Your task to perform on an android device: open wifi settings Image 0: 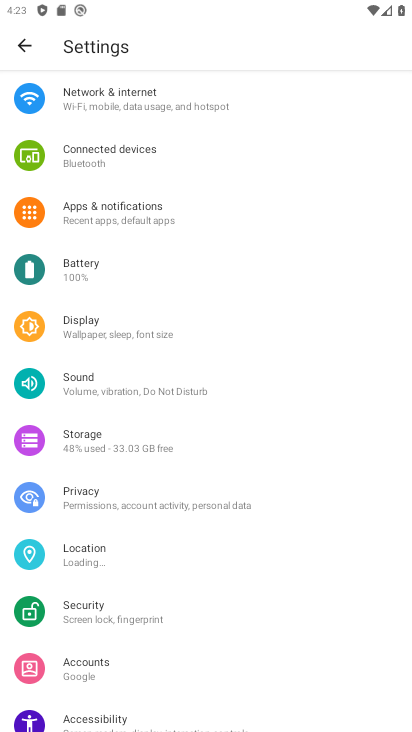
Step 0: press back button
Your task to perform on an android device: open wifi settings Image 1: 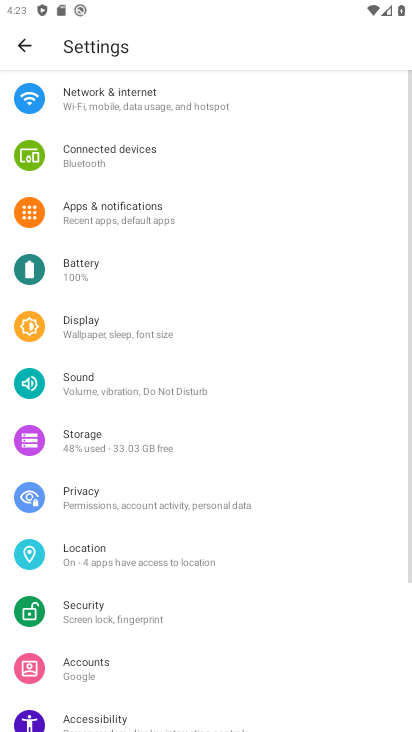
Step 1: press back button
Your task to perform on an android device: open wifi settings Image 2: 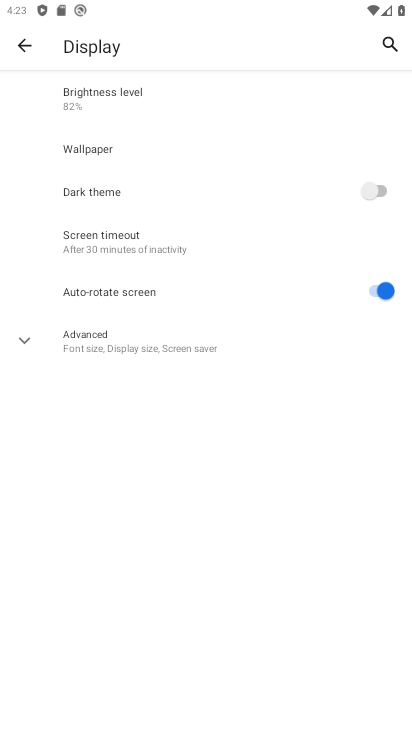
Step 2: drag from (68, 6) to (149, 518)
Your task to perform on an android device: open wifi settings Image 3: 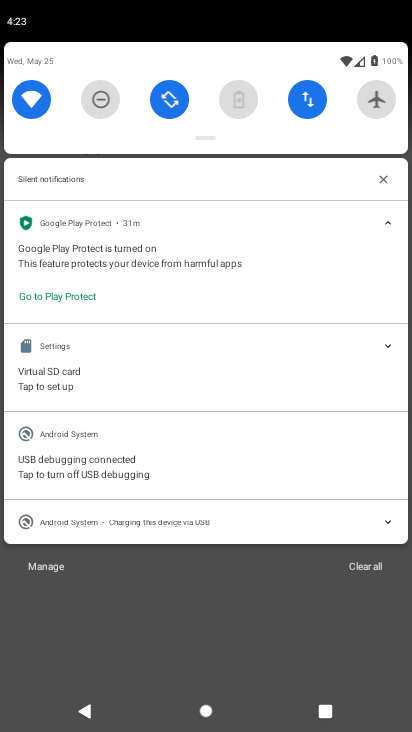
Step 3: click (32, 106)
Your task to perform on an android device: open wifi settings Image 4: 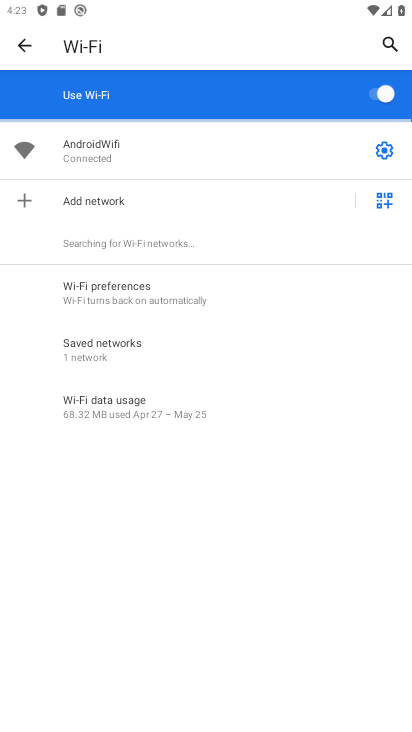
Step 4: task complete